Your task to perform on an android device: Show me the best 1080p monitor on Target.com Image 0: 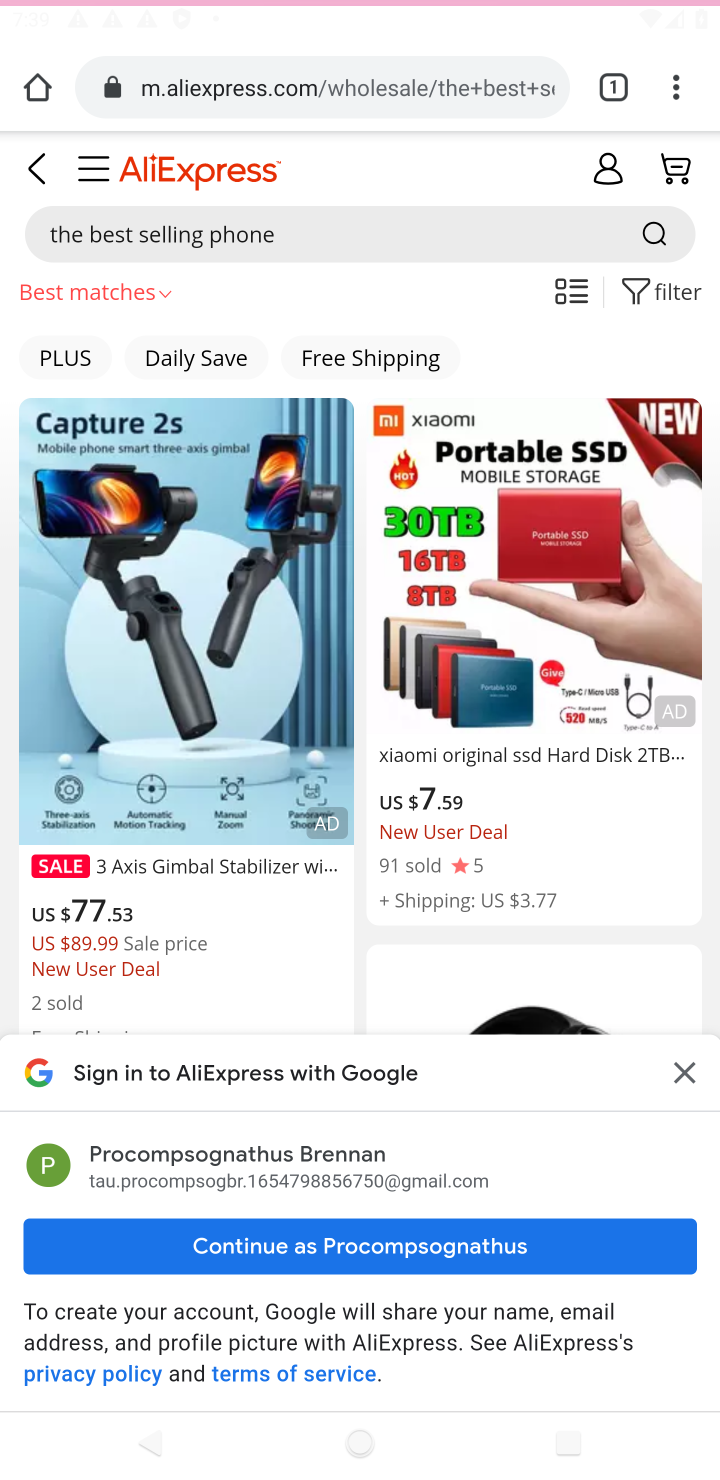
Step 0: click (673, 1054)
Your task to perform on an android device: Show me the best 1080p monitor on Target.com Image 1: 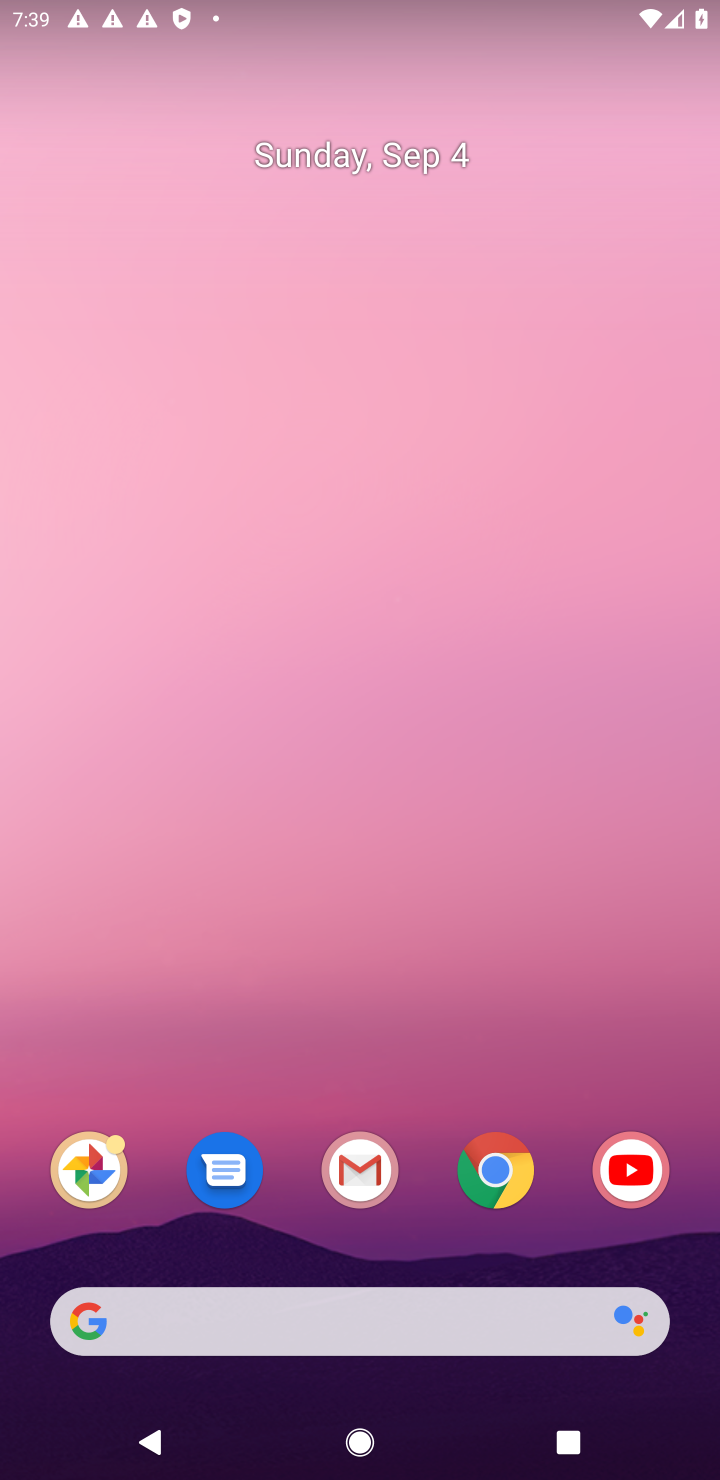
Step 1: click (491, 1181)
Your task to perform on an android device: Show me the best 1080p monitor on Target.com Image 2: 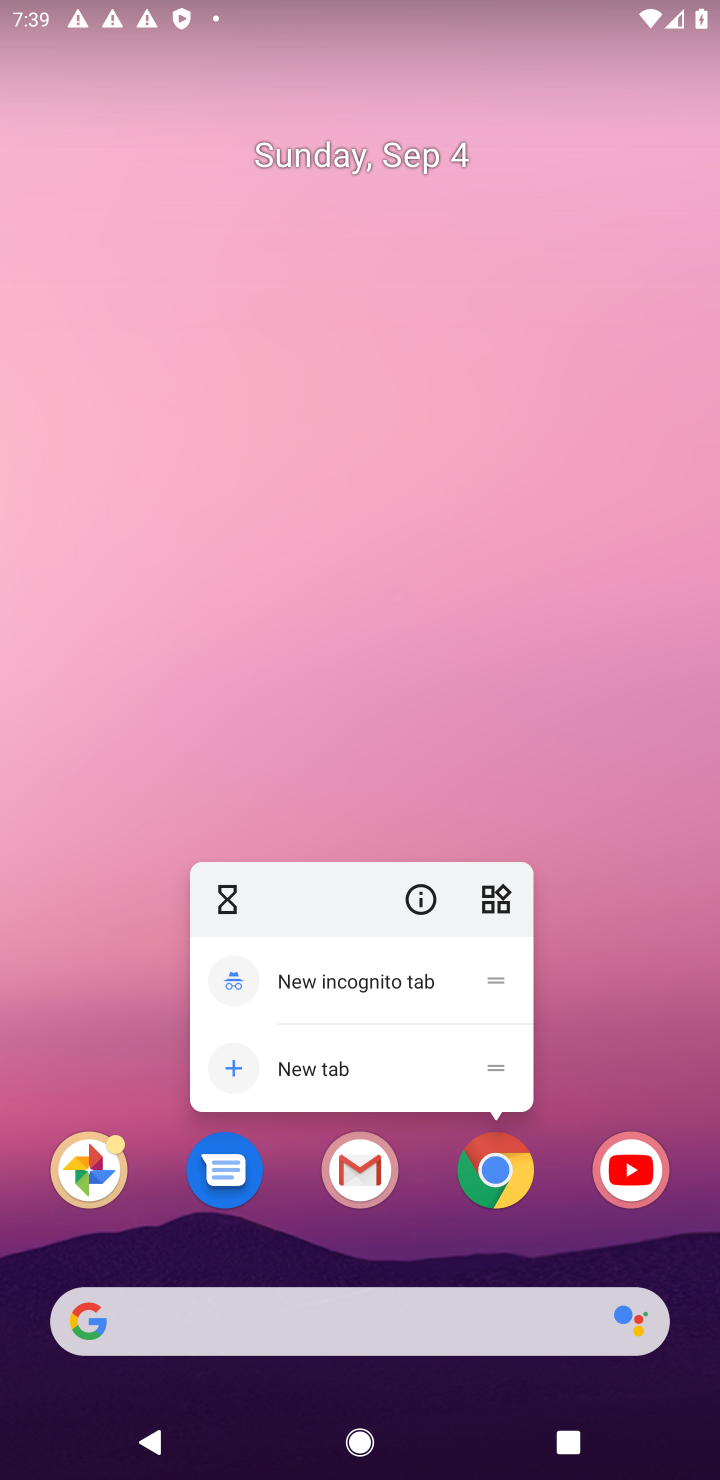
Step 2: click (490, 1193)
Your task to perform on an android device: Show me the best 1080p monitor on Target.com Image 3: 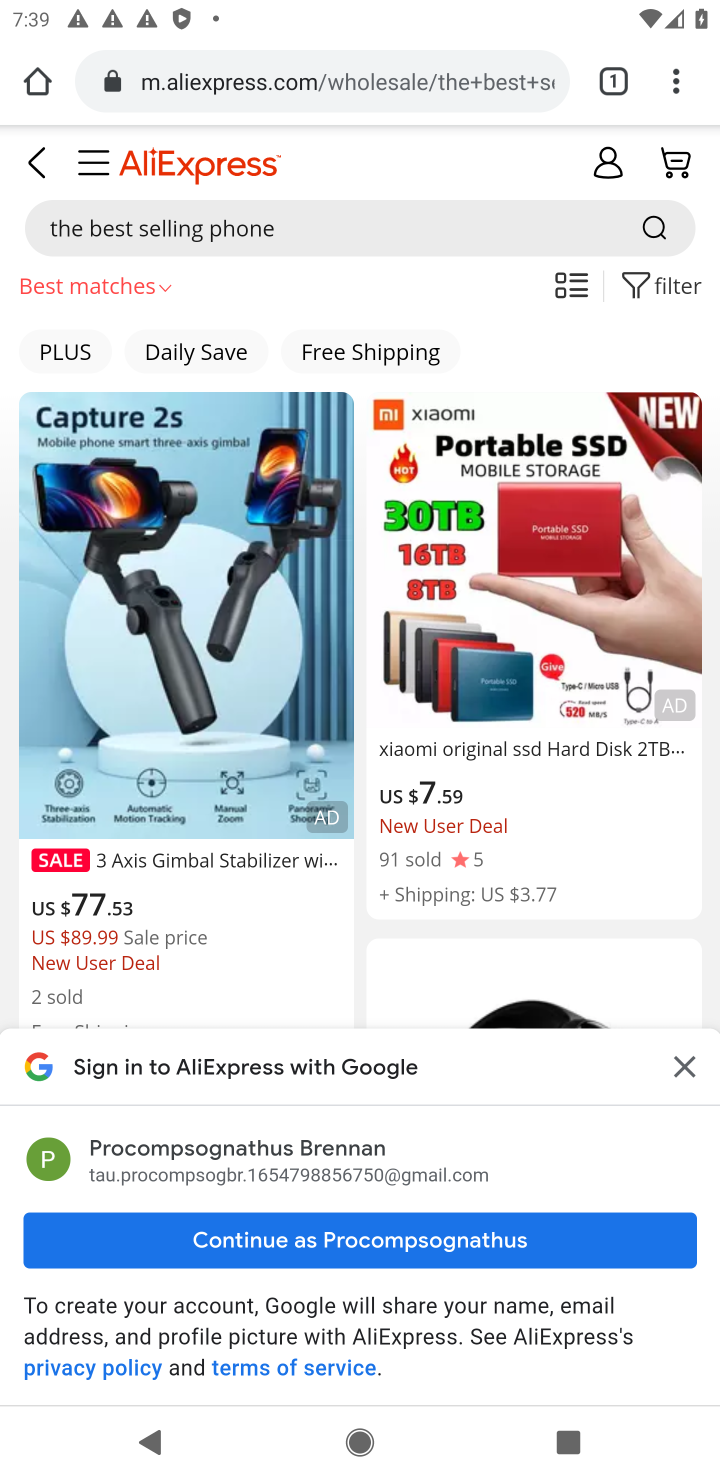
Step 3: click (323, 85)
Your task to perform on an android device: Show me the best 1080p monitor on Target.com Image 4: 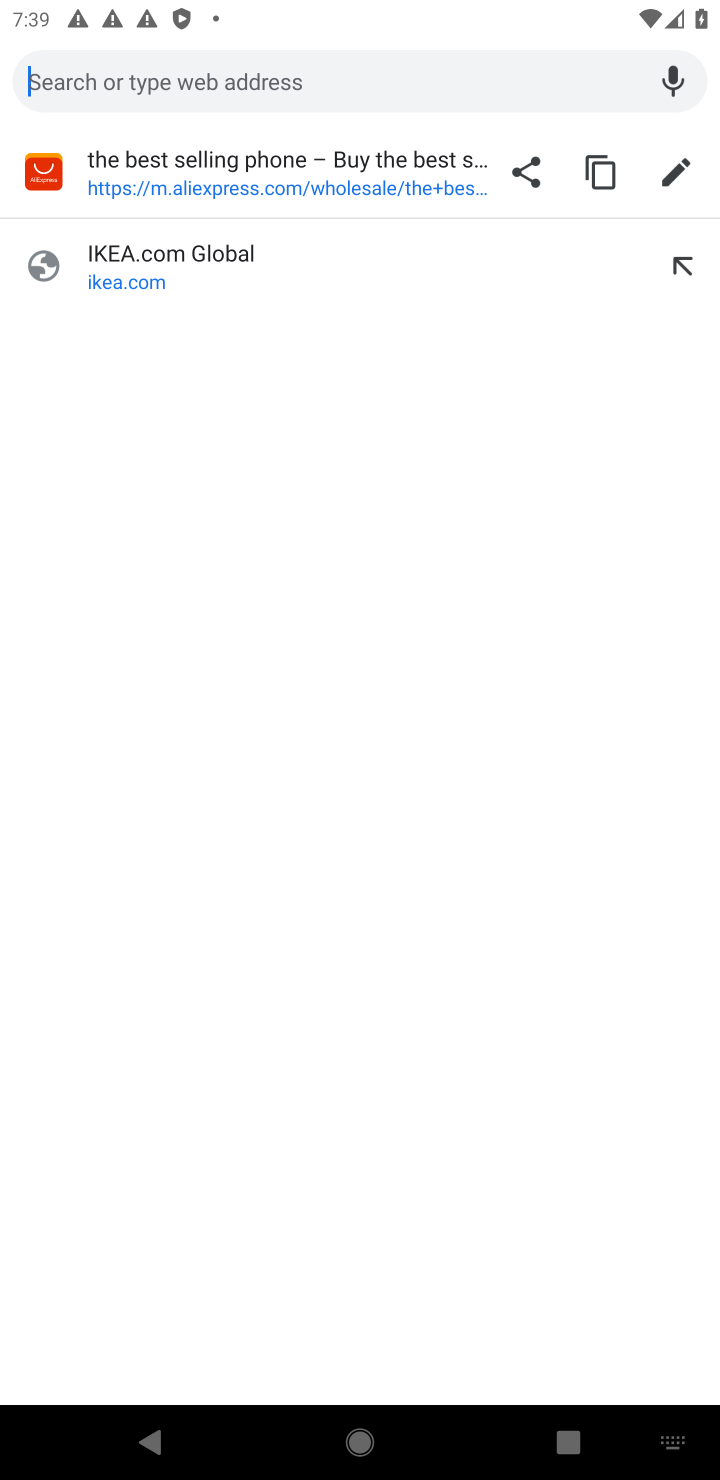
Step 4: type ""
Your task to perform on an android device: Show me the best 1080p monitor on Target.com Image 5: 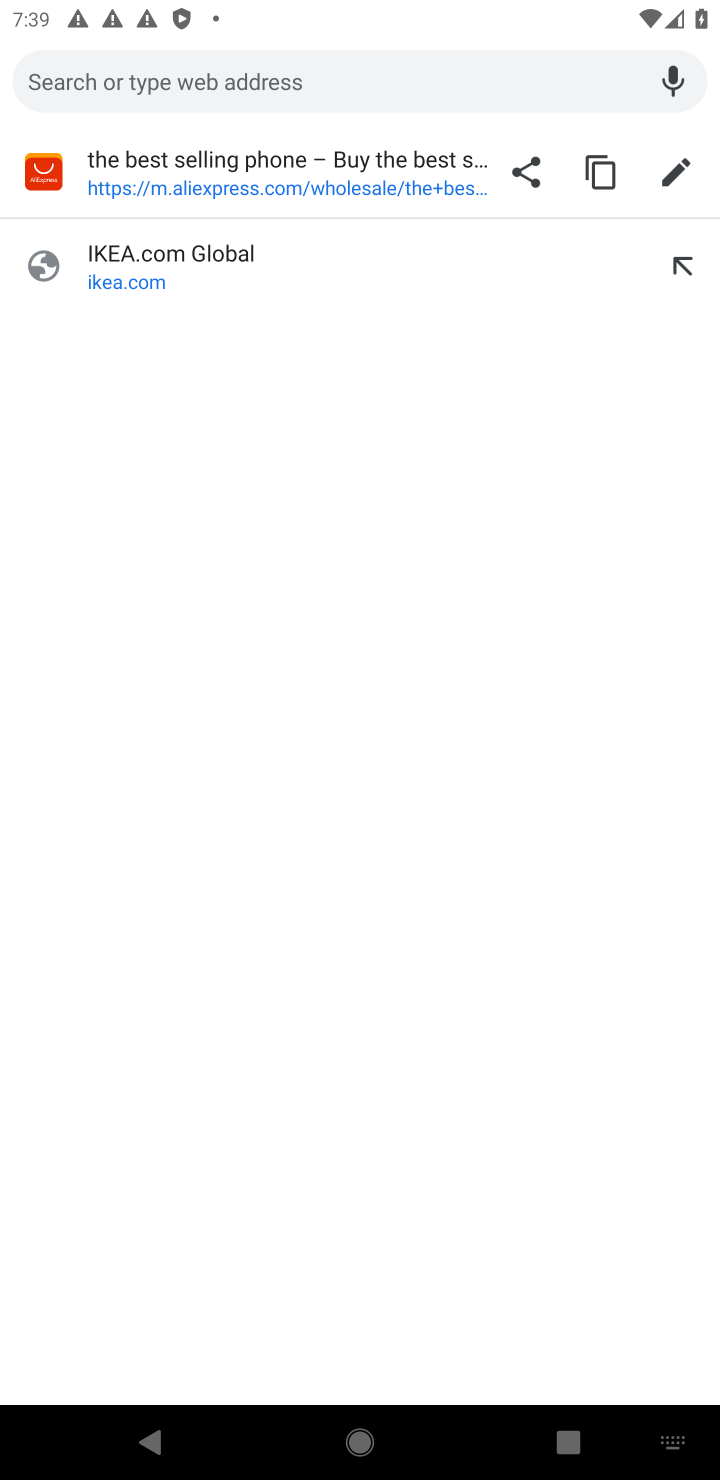
Step 5: type "target.com"
Your task to perform on an android device: Show me the best 1080p monitor on Target.com Image 6: 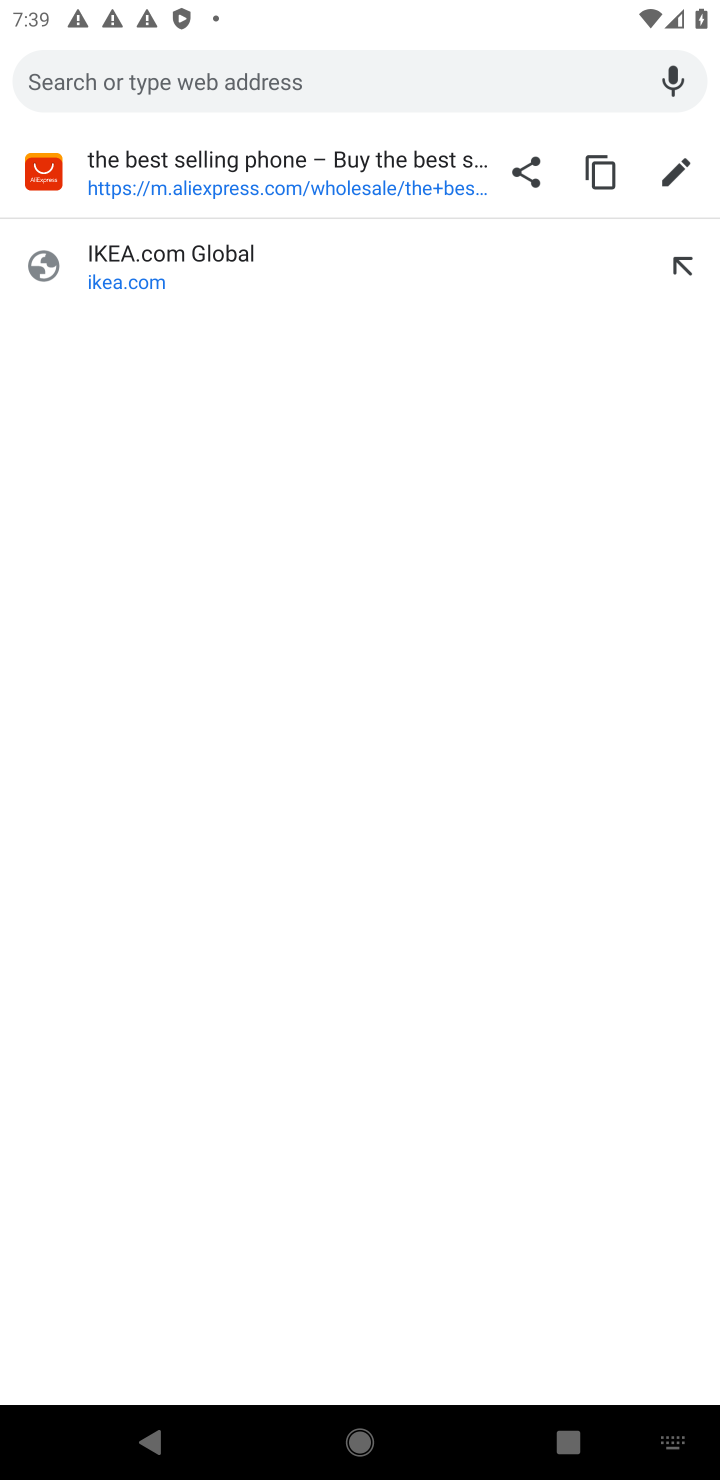
Step 6: click (454, 77)
Your task to perform on an android device: Show me the best 1080p monitor on Target.com Image 7: 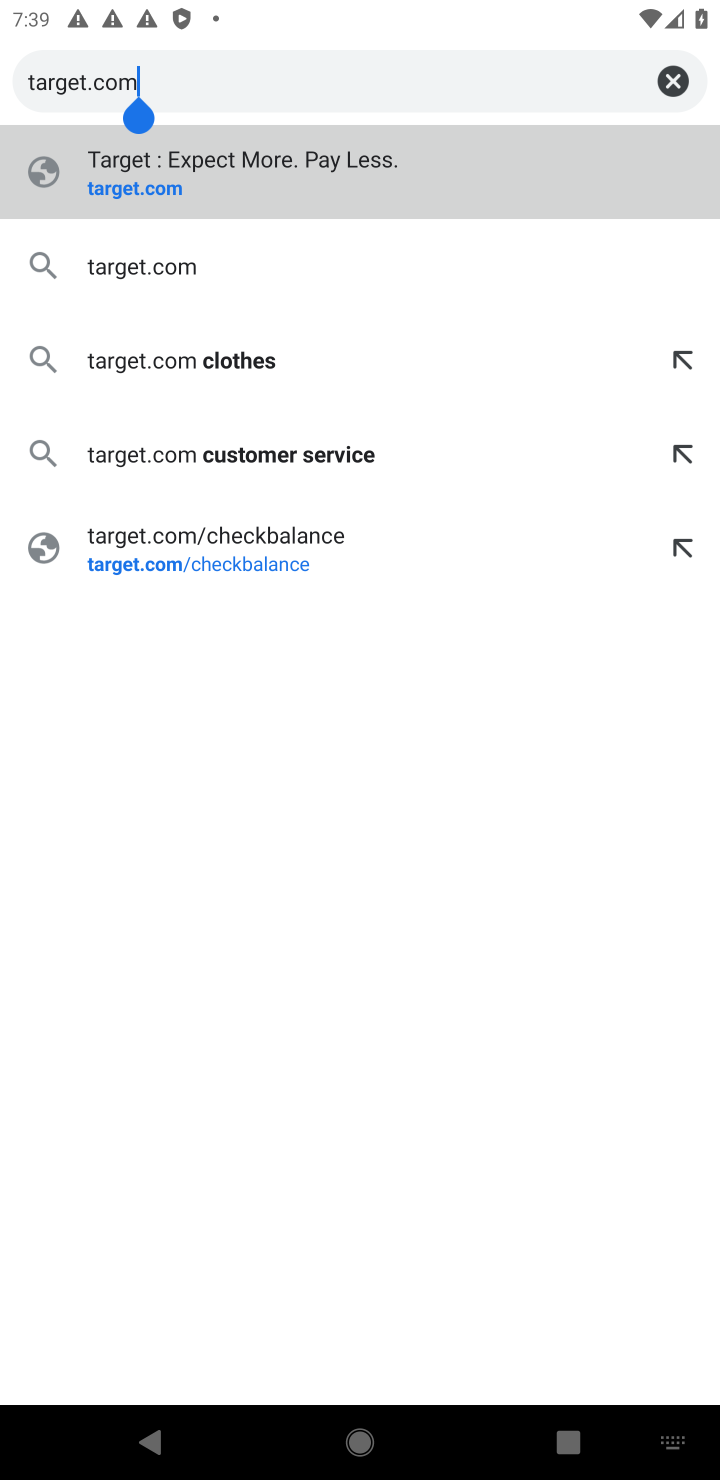
Step 7: click (373, 160)
Your task to perform on an android device: Show me the best 1080p monitor on Target.com Image 8: 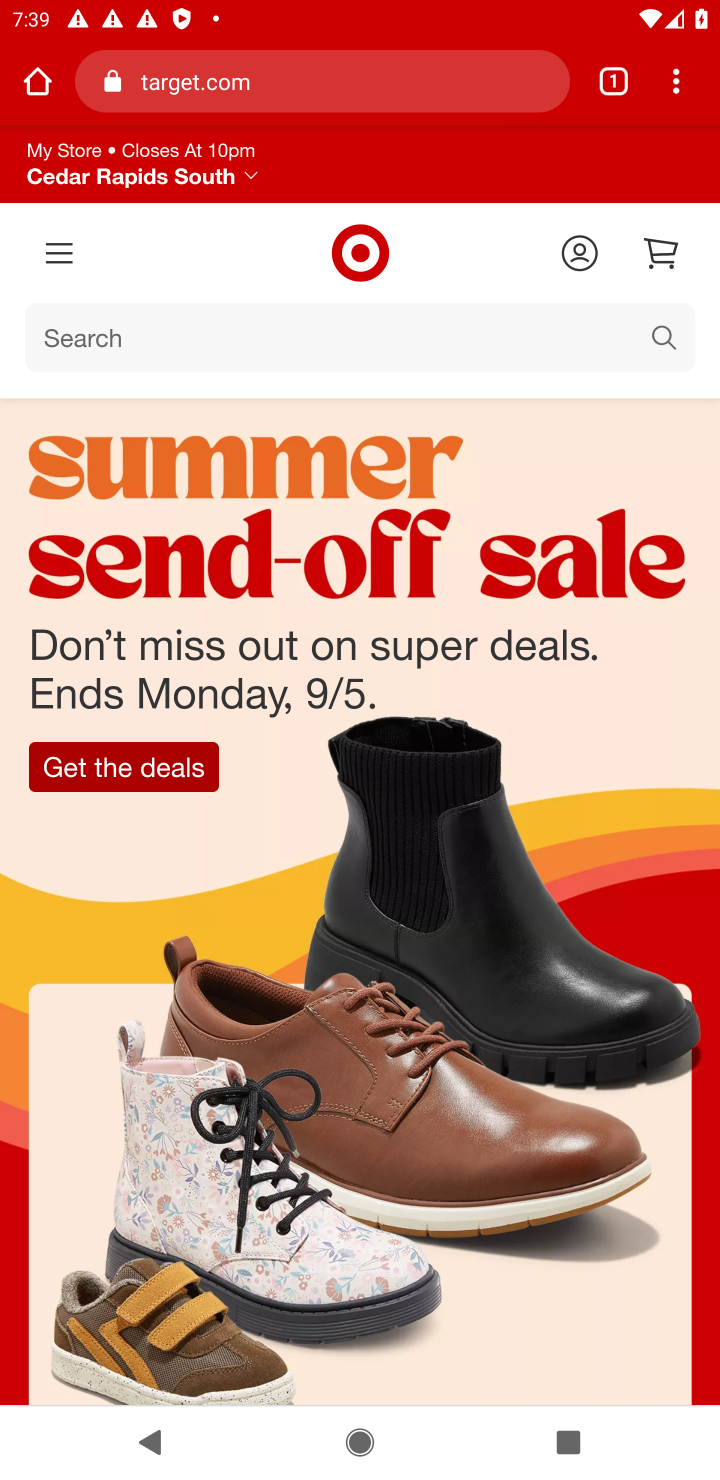
Step 8: click (342, 337)
Your task to perform on an android device: Show me the best 1080p monitor on Target.com Image 9: 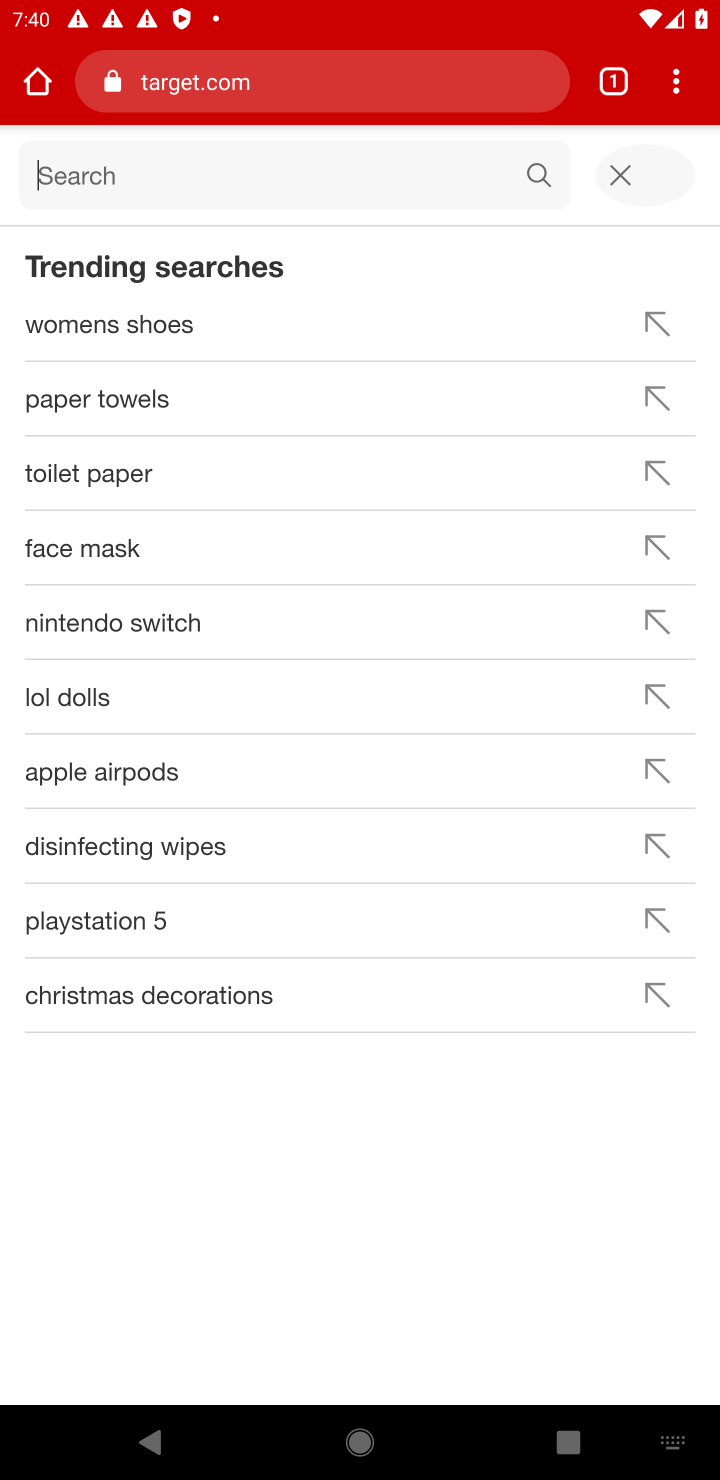
Step 9: type "the best 1080p monitor"
Your task to perform on an android device: Show me the best 1080p monitor on Target.com Image 10: 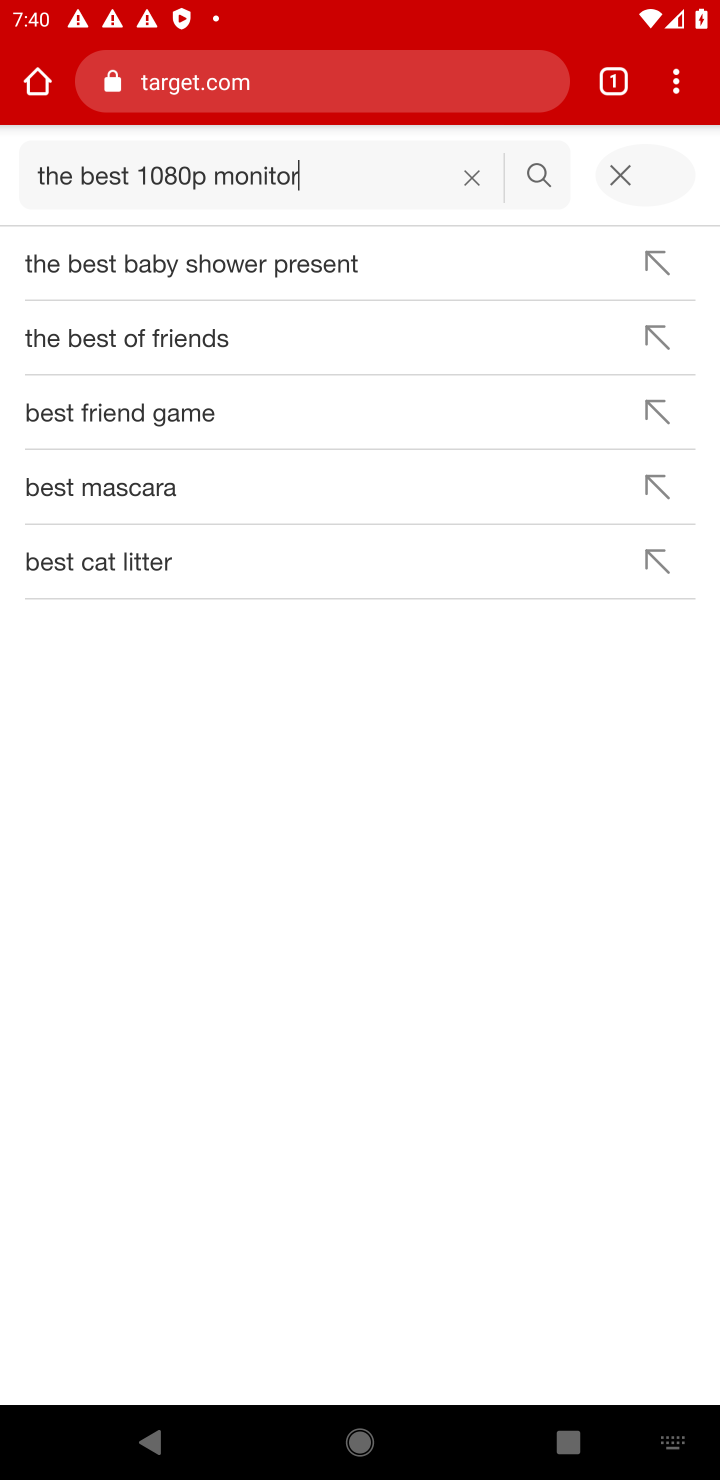
Step 10: click (543, 175)
Your task to perform on an android device: Show me the best 1080p monitor on Target.com Image 11: 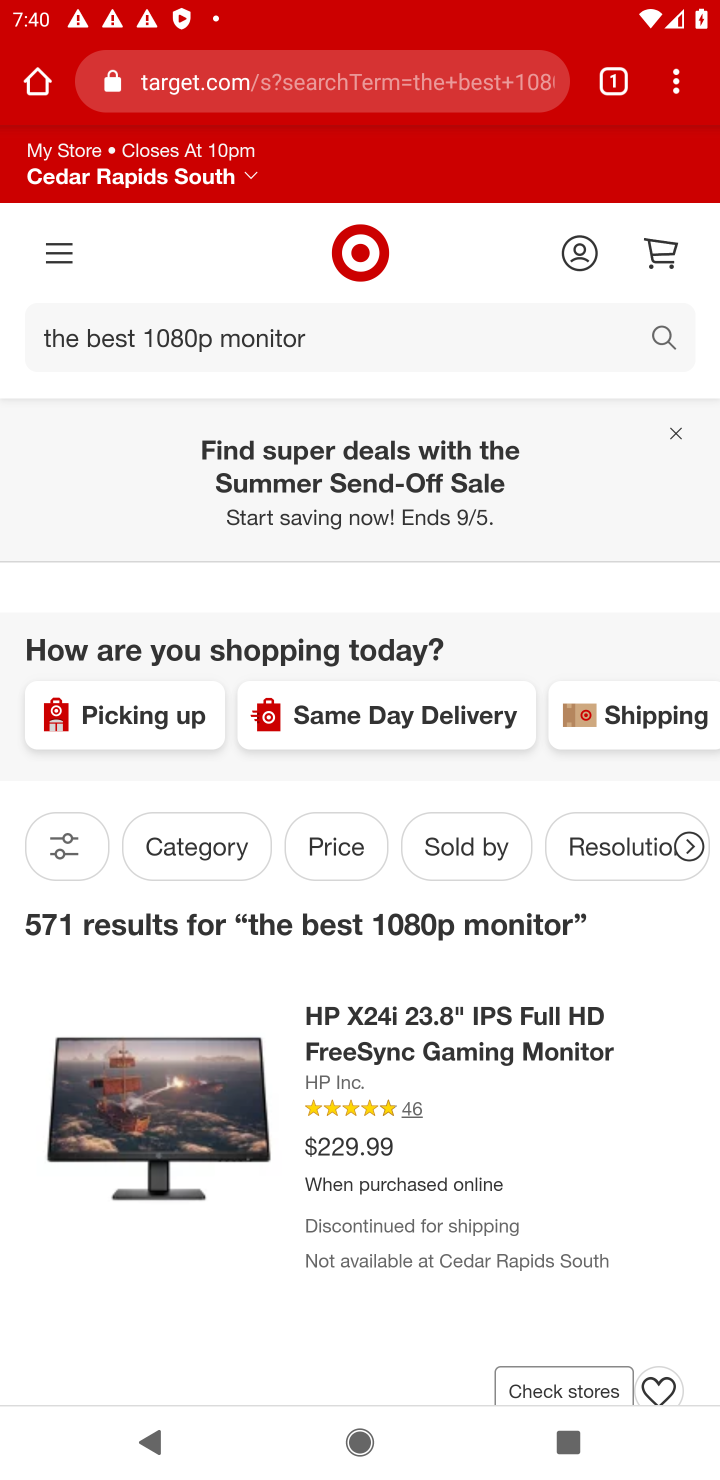
Step 11: task complete